Your task to perform on an android device: Search for pizza restaurants on Maps Image 0: 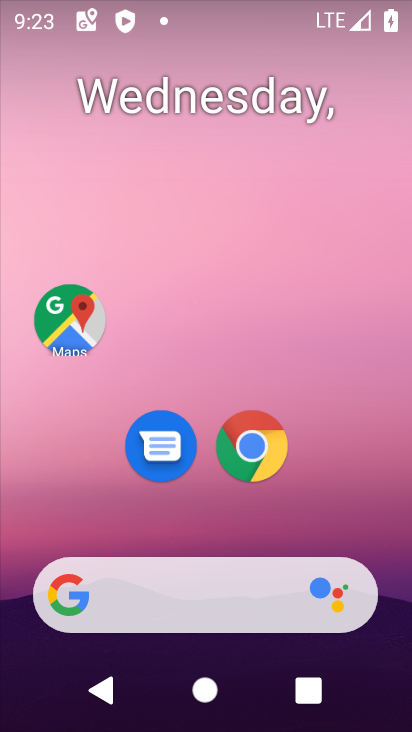
Step 0: press home button
Your task to perform on an android device: Search for pizza restaurants on Maps Image 1: 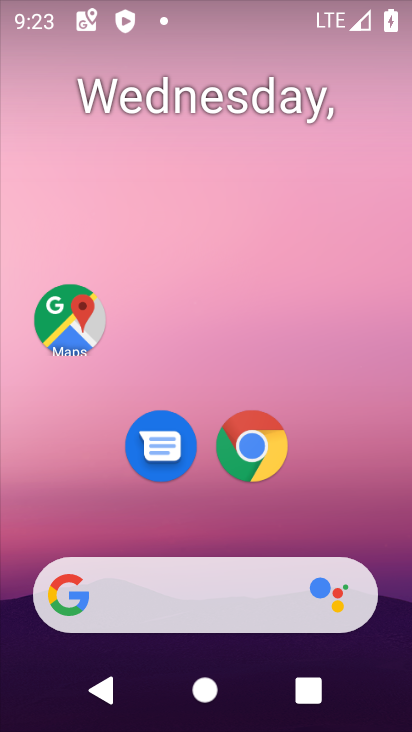
Step 1: click (64, 334)
Your task to perform on an android device: Search for pizza restaurants on Maps Image 2: 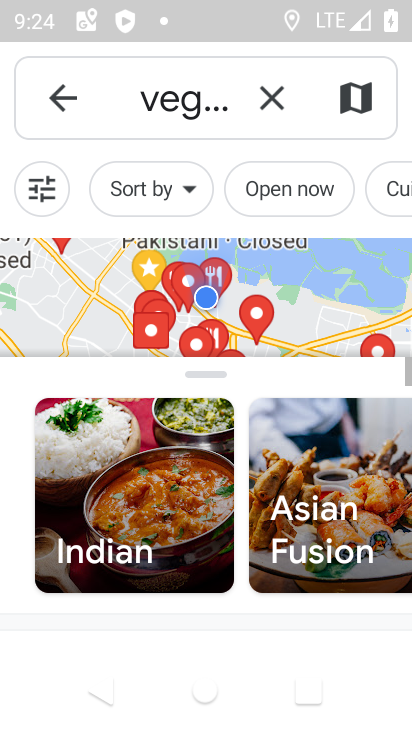
Step 2: click (265, 97)
Your task to perform on an android device: Search for pizza restaurants on Maps Image 3: 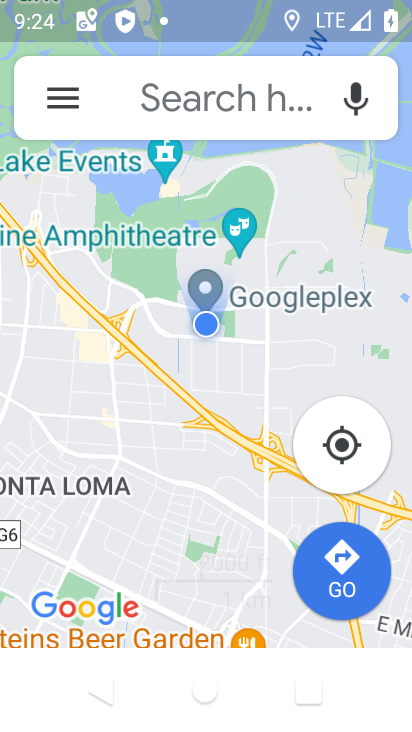
Step 3: click (190, 99)
Your task to perform on an android device: Search for pizza restaurants on Maps Image 4: 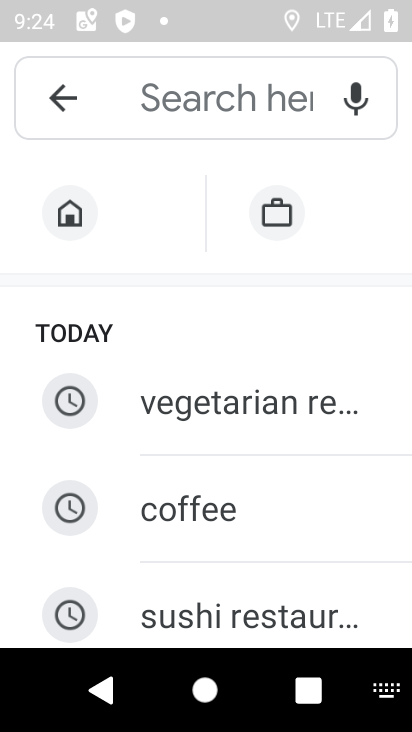
Step 4: drag from (230, 572) to (306, 242)
Your task to perform on an android device: Search for pizza restaurants on Maps Image 5: 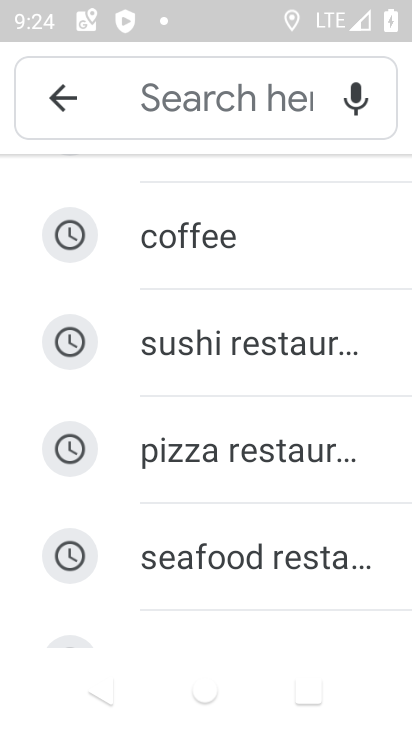
Step 5: click (231, 463)
Your task to perform on an android device: Search for pizza restaurants on Maps Image 6: 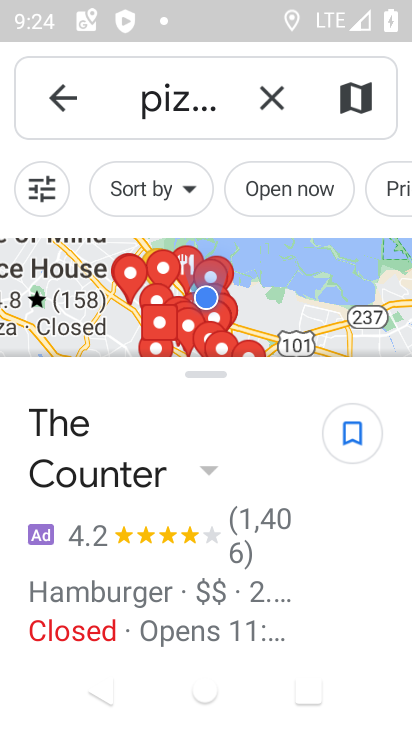
Step 6: task complete